Your task to perform on an android device: turn off airplane mode Image 0: 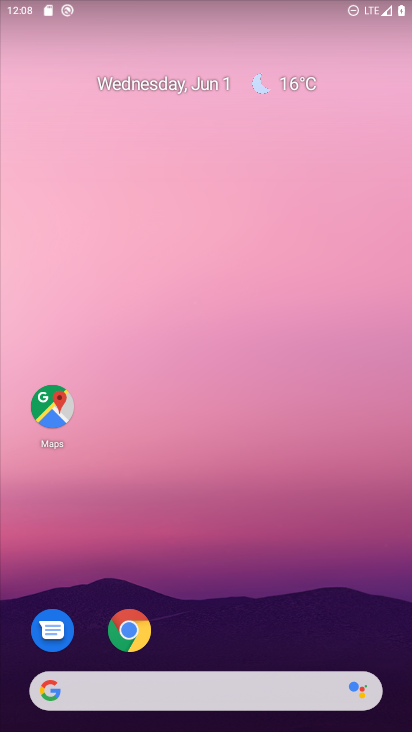
Step 0: drag from (261, 620) to (289, 144)
Your task to perform on an android device: turn off airplane mode Image 1: 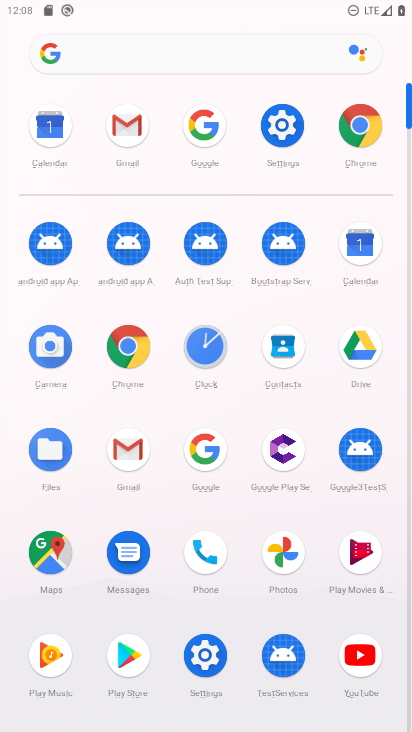
Step 1: click (287, 125)
Your task to perform on an android device: turn off airplane mode Image 2: 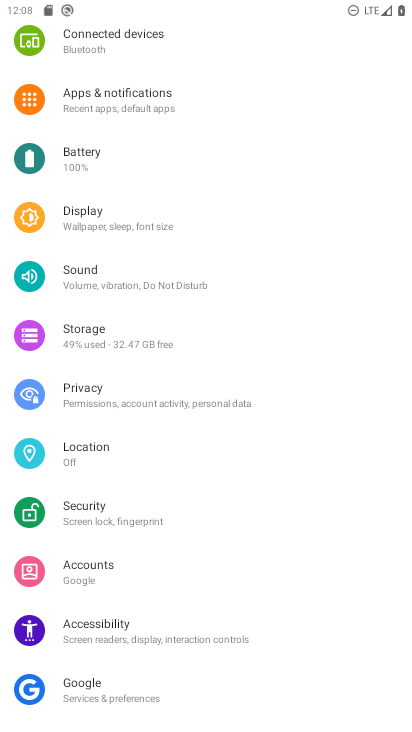
Step 2: drag from (165, 106) to (190, 518)
Your task to perform on an android device: turn off airplane mode Image 3: 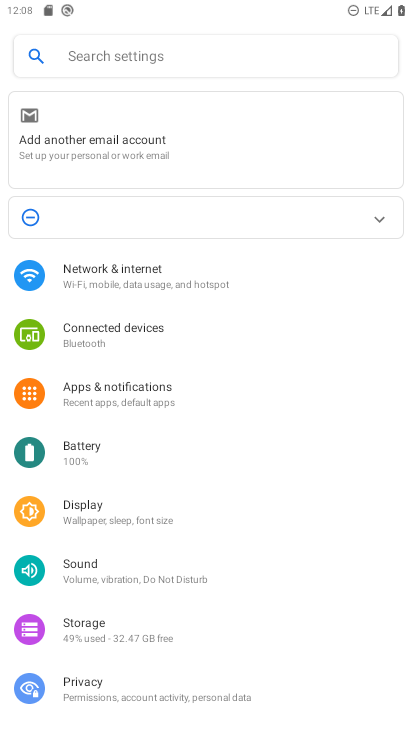
Step 3: click (185, 278)
Your task to perform on an android device: turn off airplane mode Image 4: 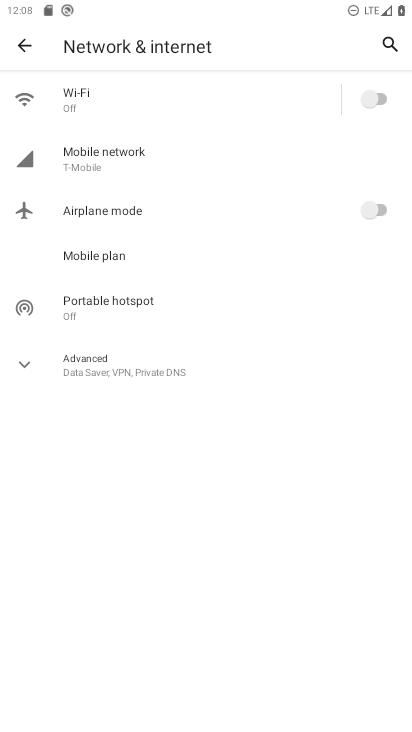
Step 4: task complete